Your task to perform on an android device: Open the calendar and show me this week's events? Image 0: 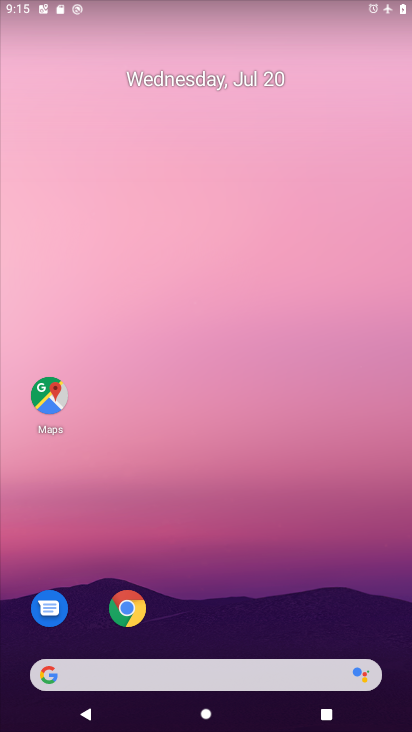
Step 0: drag from (274, 646) to (279, 342)
Your task to perform on an android device: Open the calendar and show me this week's events? Image 1: 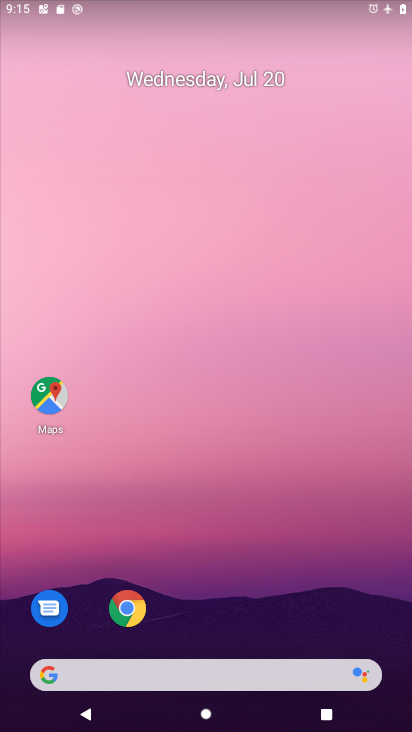
Step 1: drag from (194, 624) to (199, 164)
Your task to perform on an android device: Open the calendar and show me this week's events? Image 2: 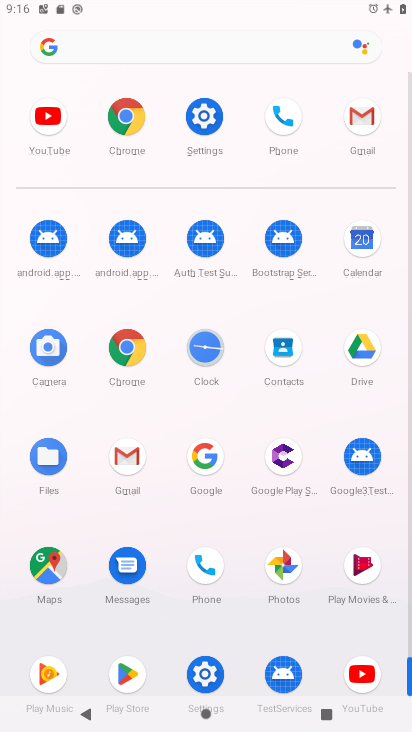
Step 2: click (355, 245)
Your task to perform on an android device: Open the calendar and show me this week's events? Image 3: 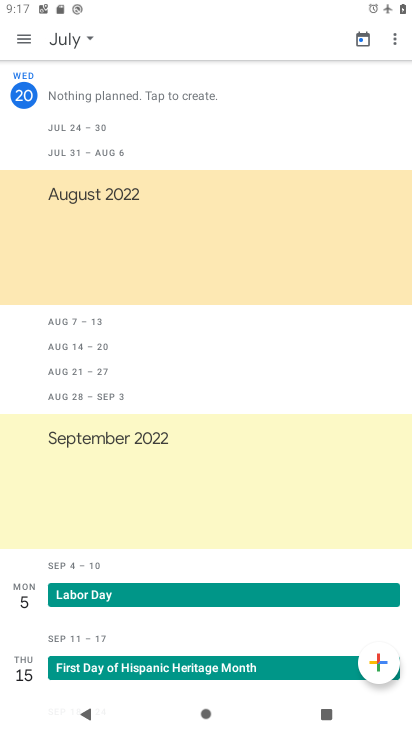
Step 3: click (20, 38)
Your task to perform on an android device: Open the calendar and show me this week's events? Image 4: 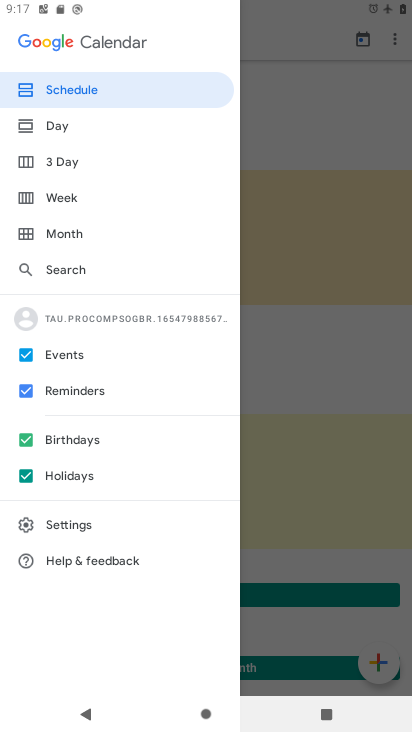
Step 4: click (76, 187)
Your task to perform on an android device: Open the calendar and show me this week's events? Image 5: 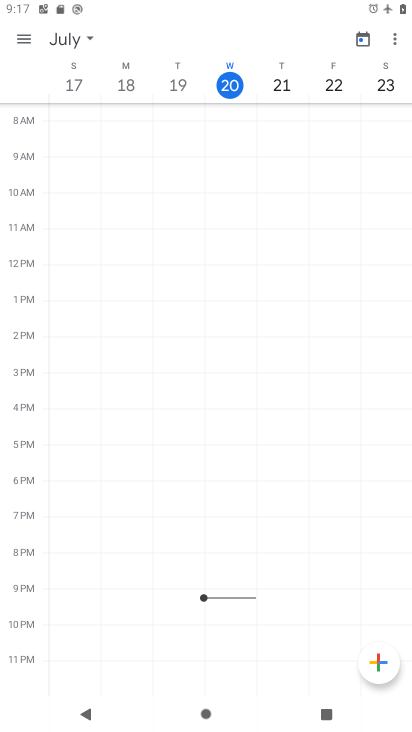
Step 5: task complete